Your task to perform on an android device: Open wifi settings Image 0: 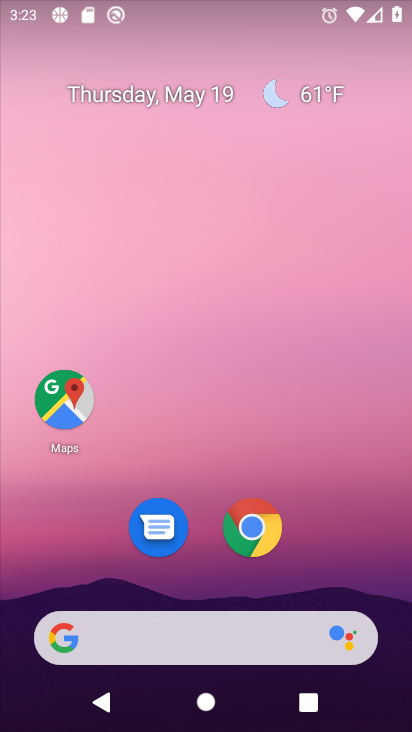
Step 0: drag from (54, 30) to (92, 521)
Your task to perform on an android device: Open wifi settings Image 1: 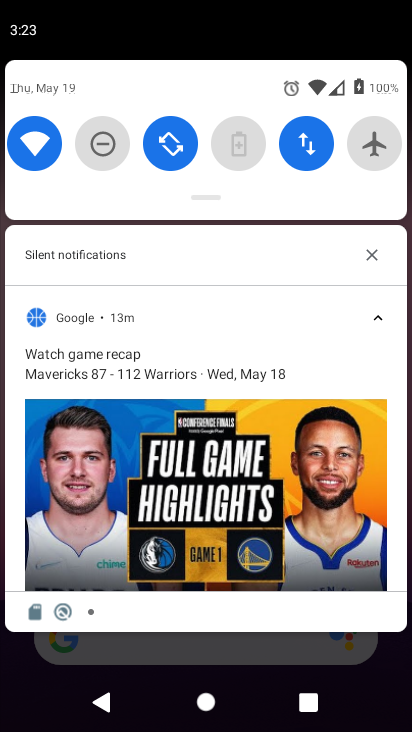
Step 1: click (42, 150)
Your task to perform on an android device: Open wifi settings Image 2: 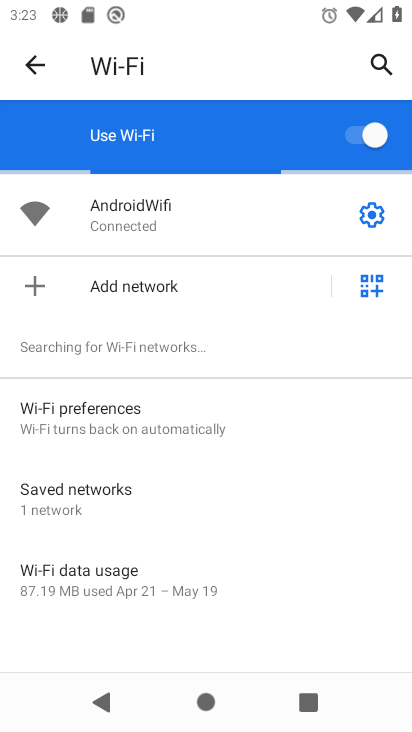
Step 2: task complete